Your task to perform on an android device: Open Google Maps Image 0: 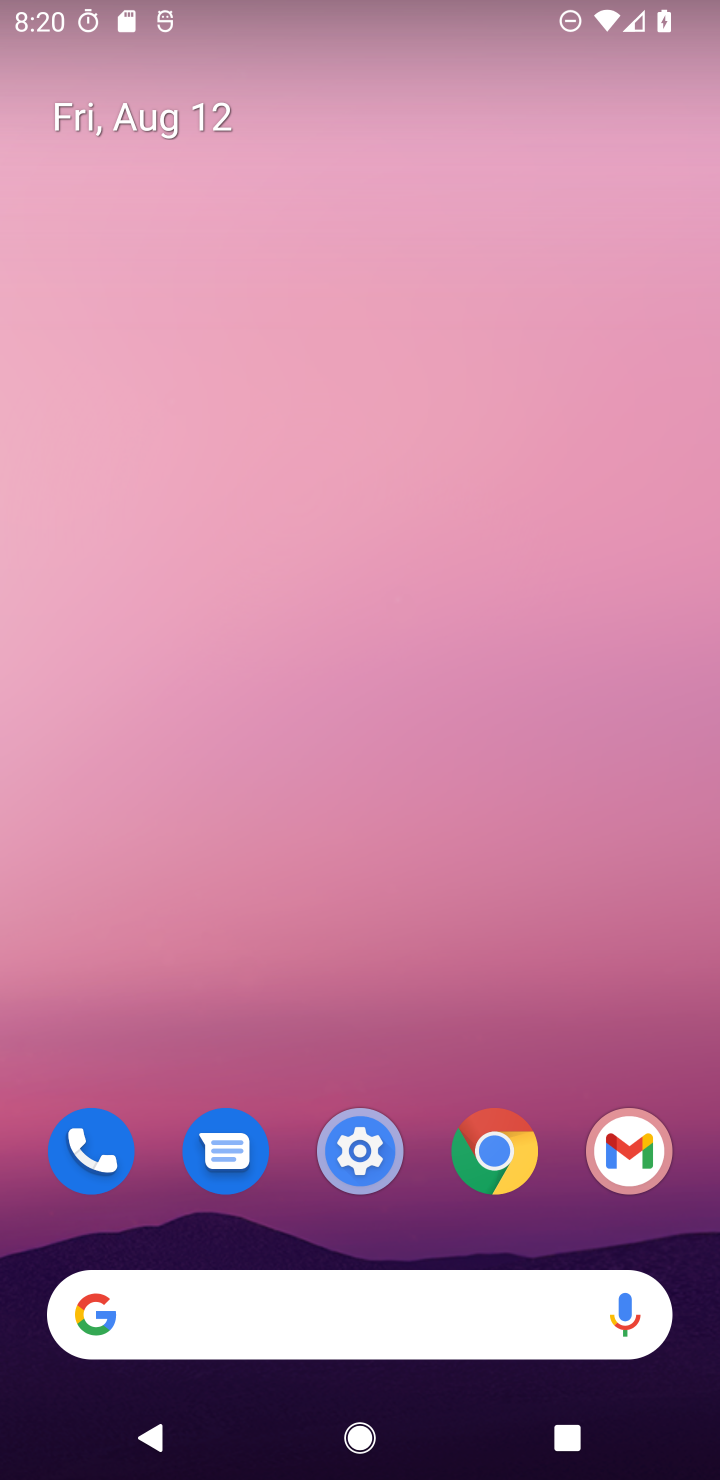
Step 0: drag from (455, 965) to (521, 0)
Your task to perform on an android device: Open Google Maps Image 1: 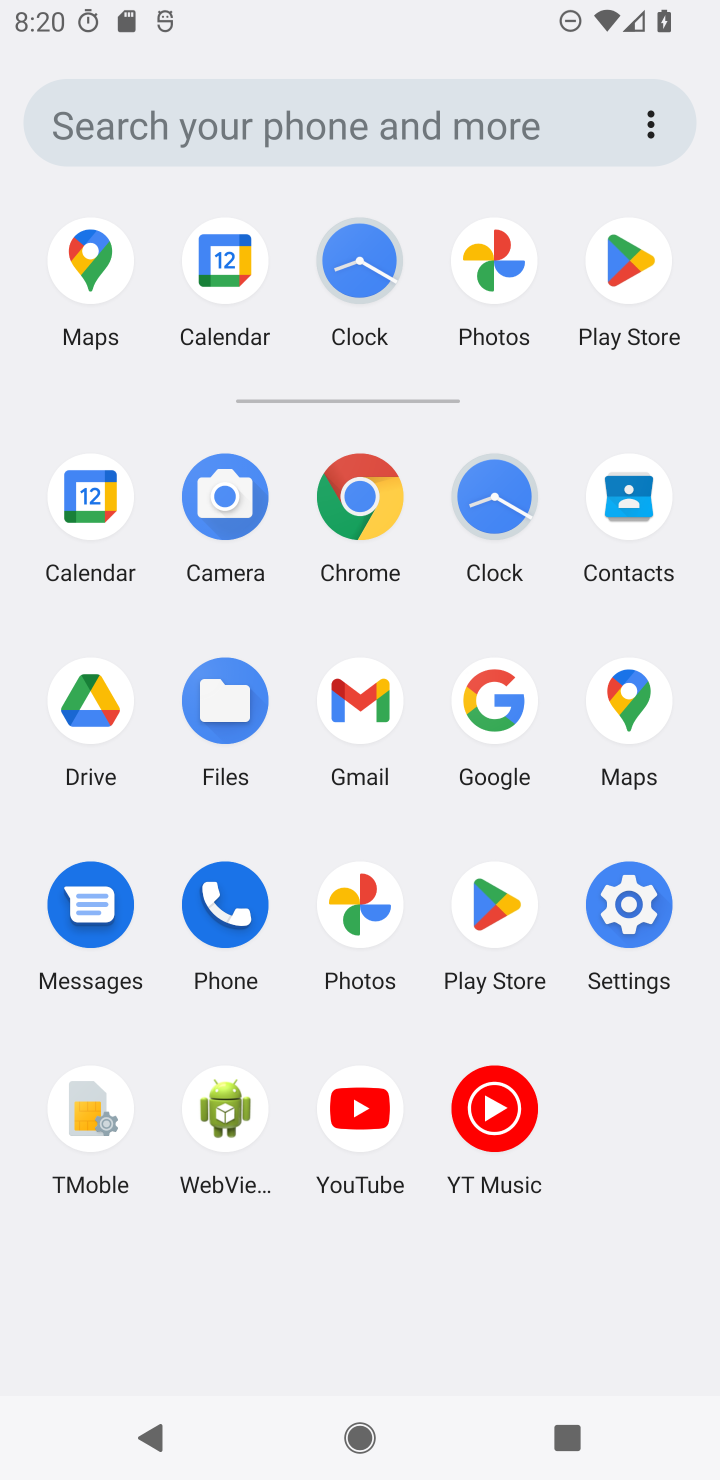
Step 1: click (648, 694)
Your task to perform on an android device: Open Google Maps Image 2: 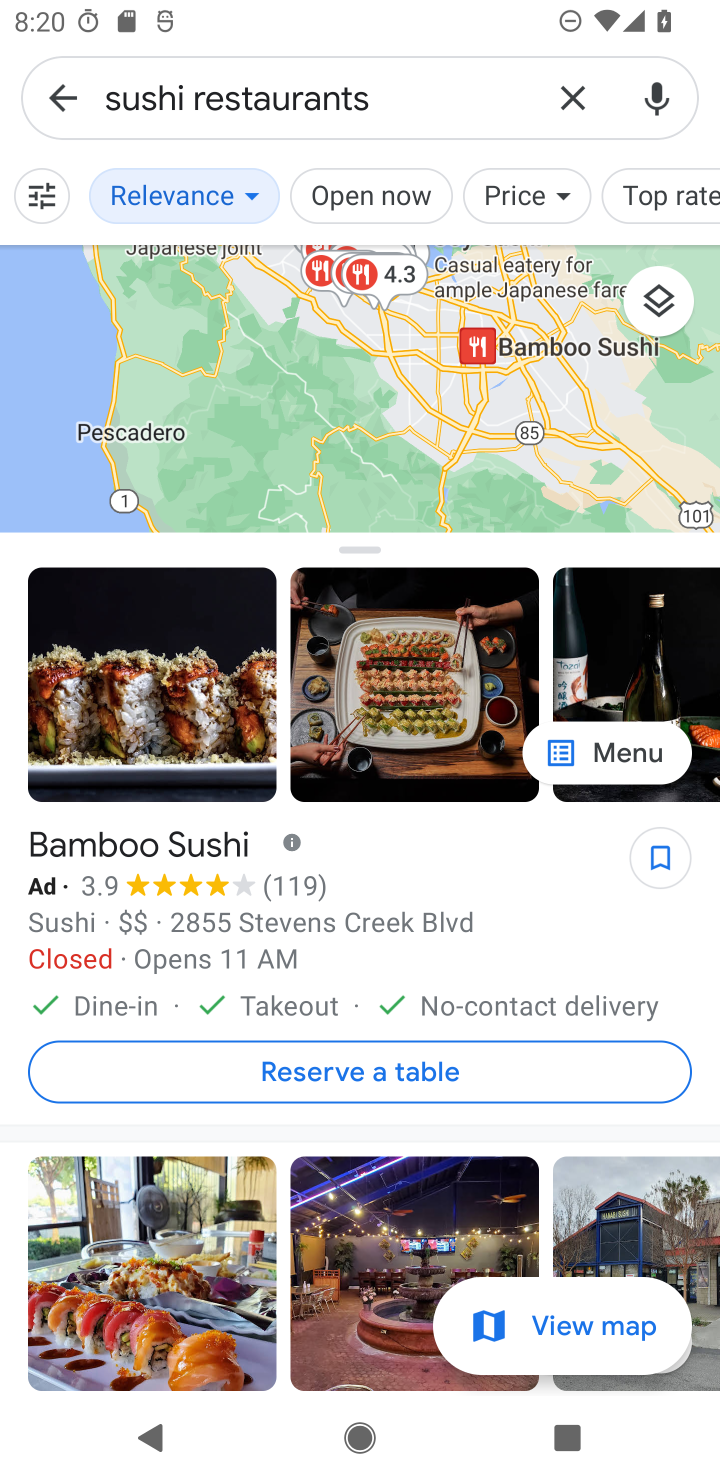
Step 2: task complete